Your task to perform on an android device: turn off location history Image 0: 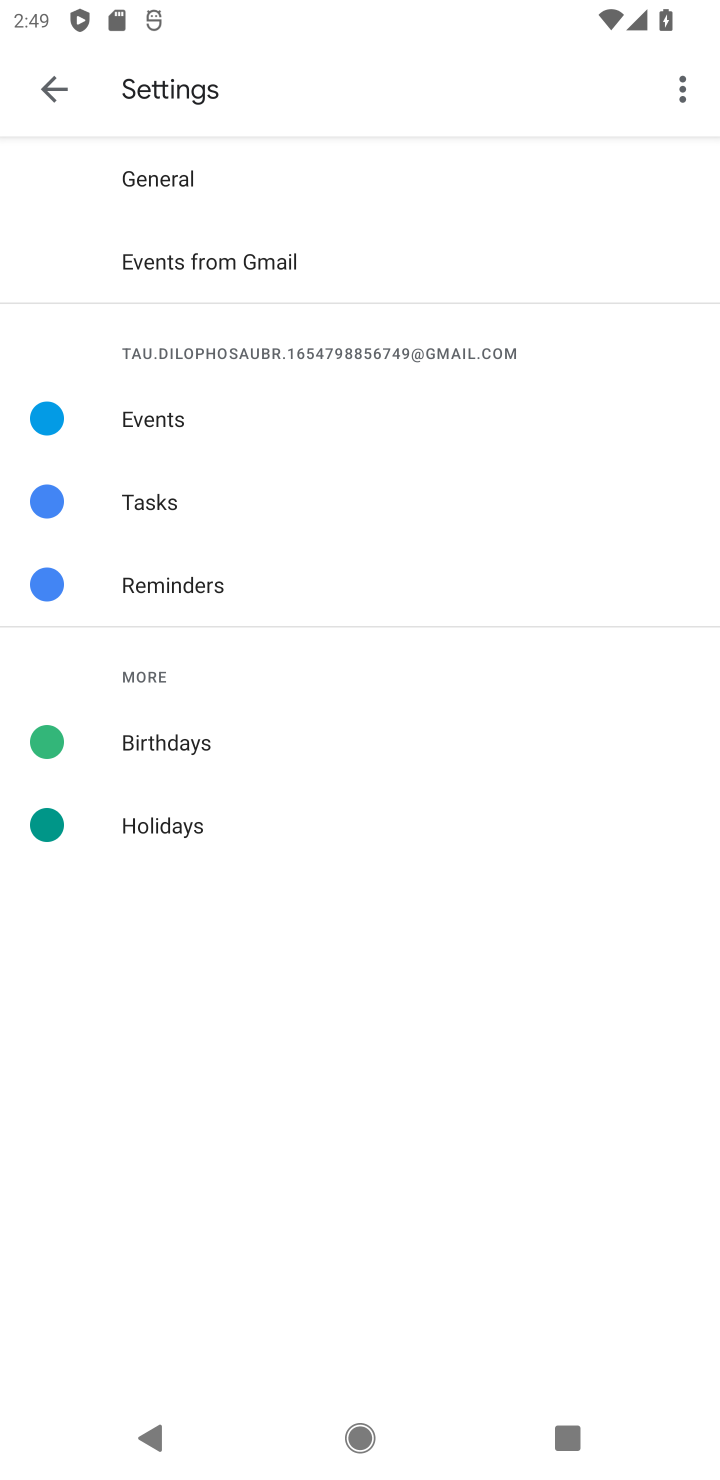
Step 0: press back button
Your task to perform on an android device: turn off location history Image 1: 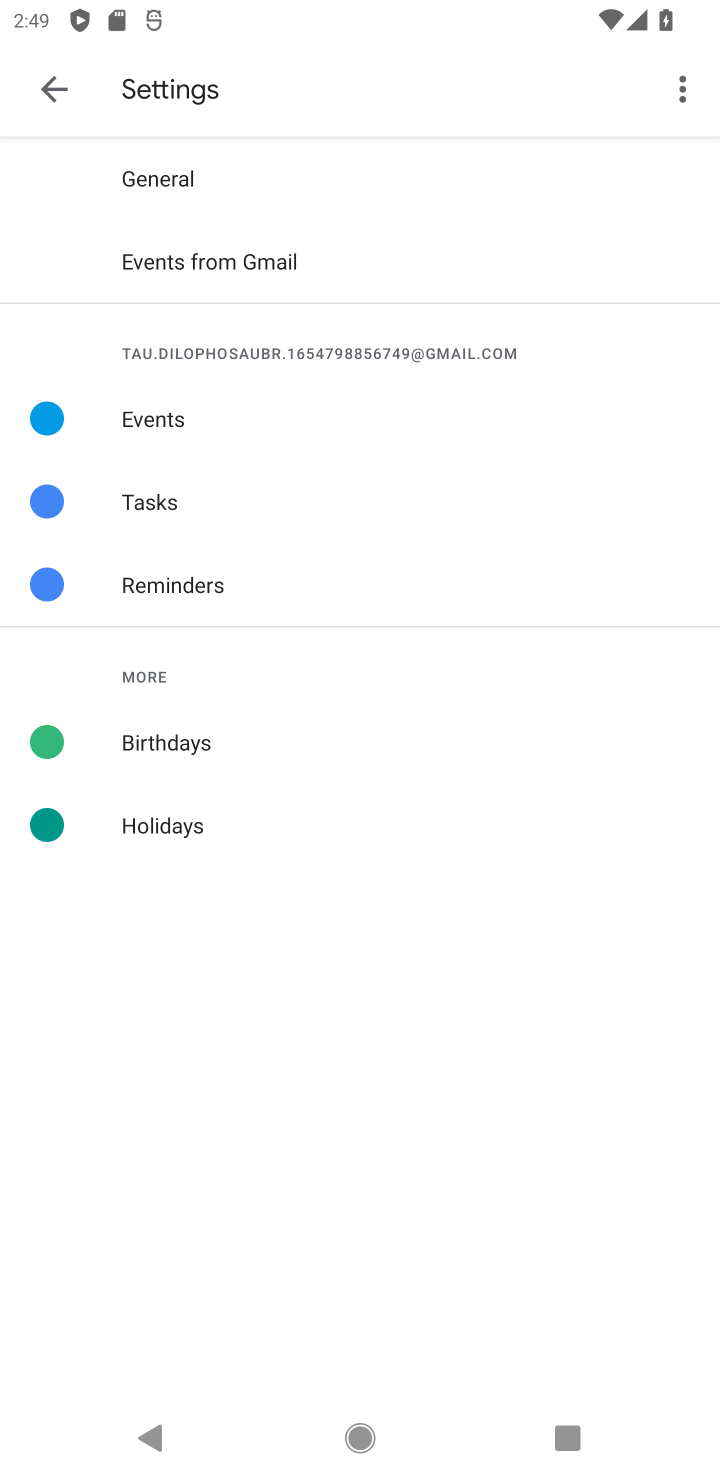
Step 1: click (48, 87)
Your task to perform on an android device: turn off location history Image 2: 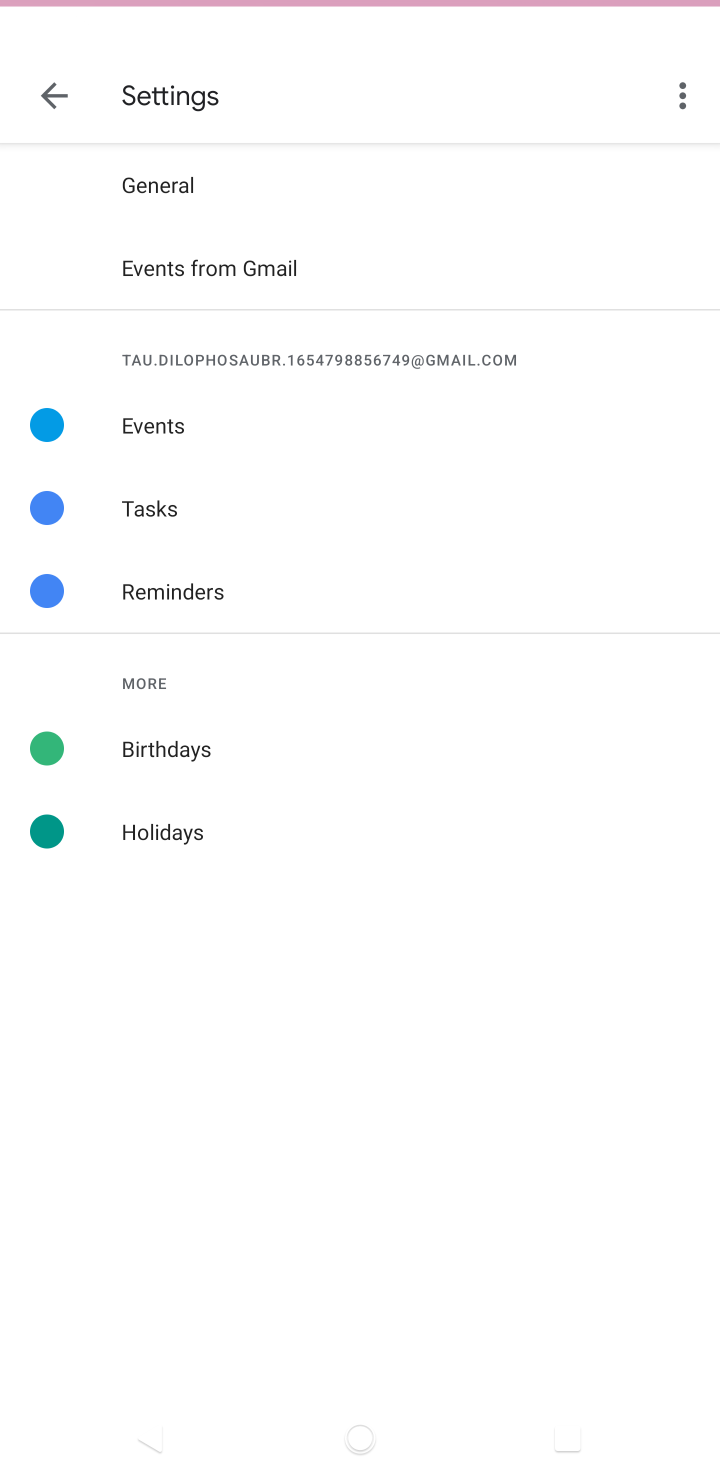
Step 2: press back button
Your task to perform on an android device: turn off location history Image 3: 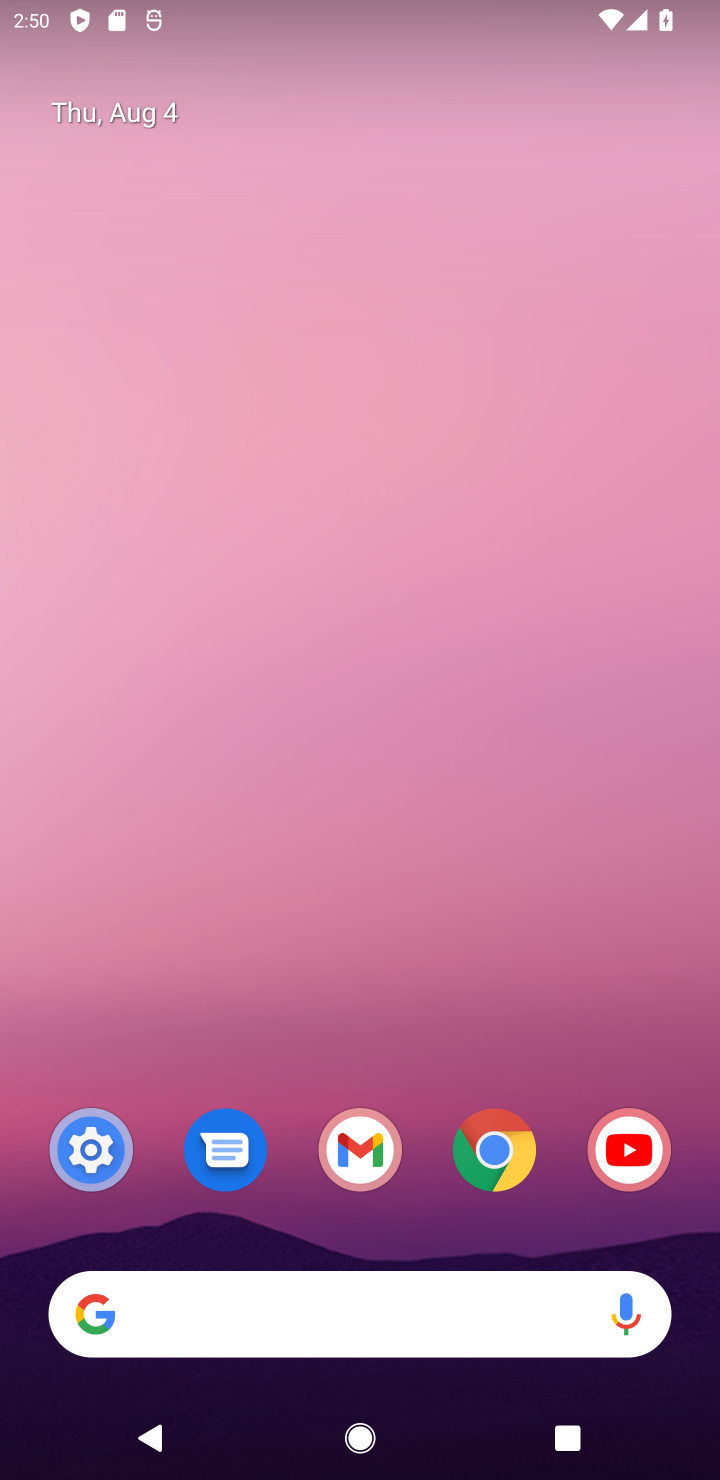
Step 3: drag from (130, 431) to (354, 464)
Your task to perform on an android device: turn off location history Image 4: 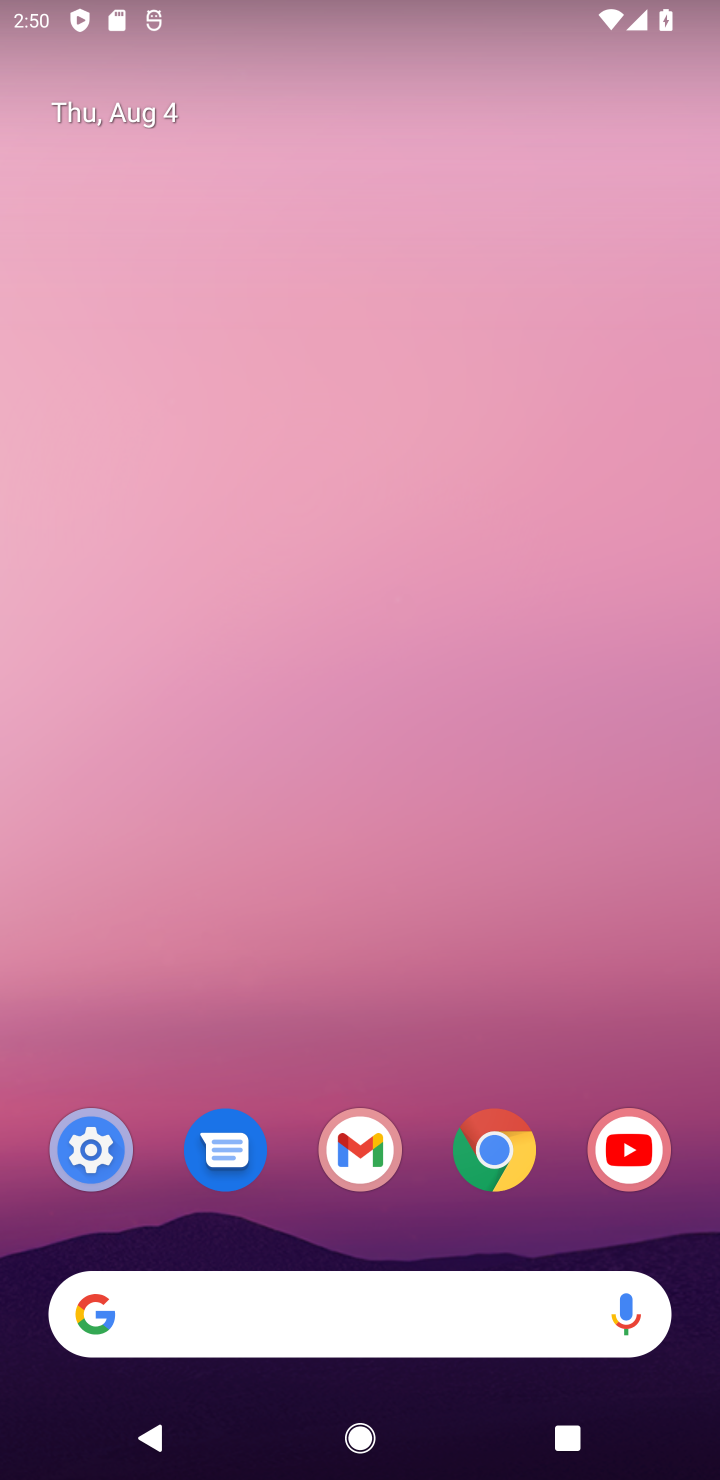
Step 4: drag from (458, 1397) to (209, 266)
Your task to perform on an android device: turn off location history Image 5: 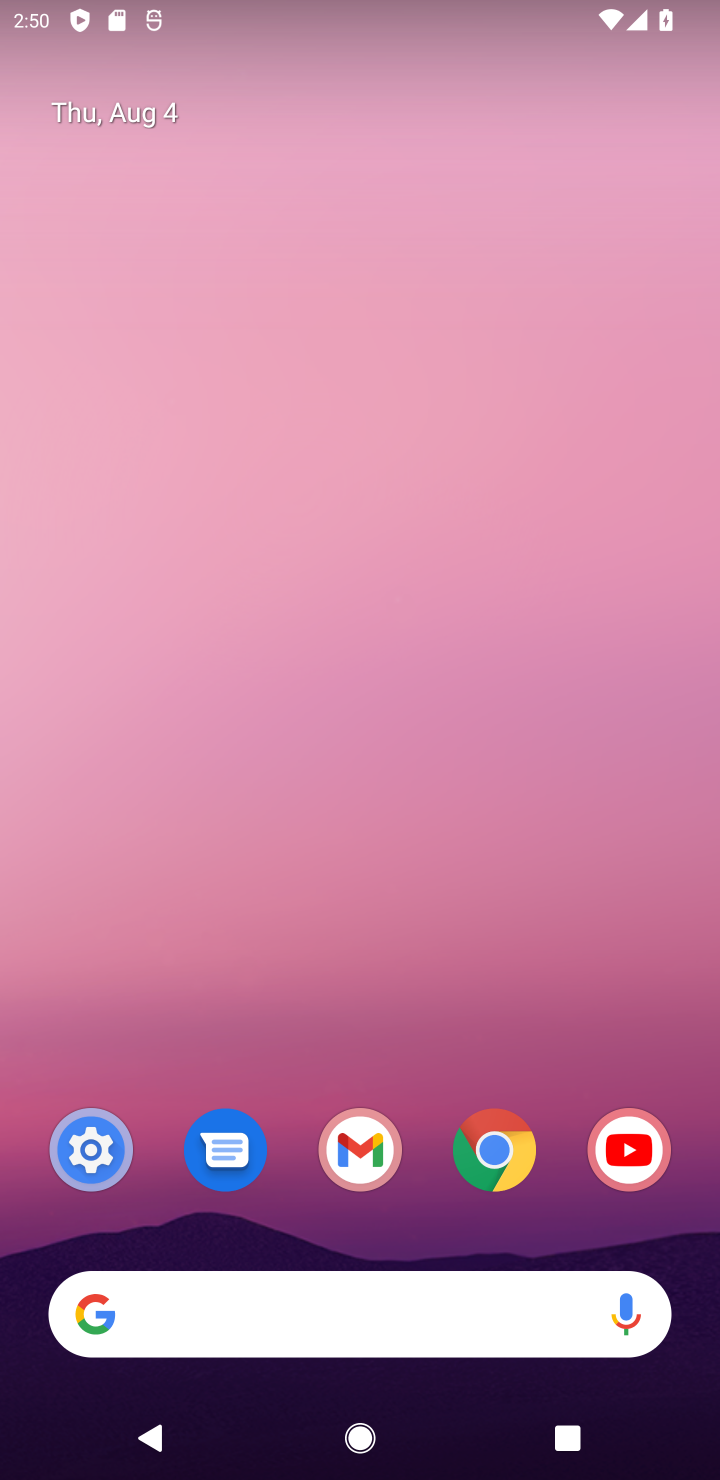
Step 5: drag from (464, 1177) to (303, 221)
Your task to perform on an android device: turn off location history Image 6: 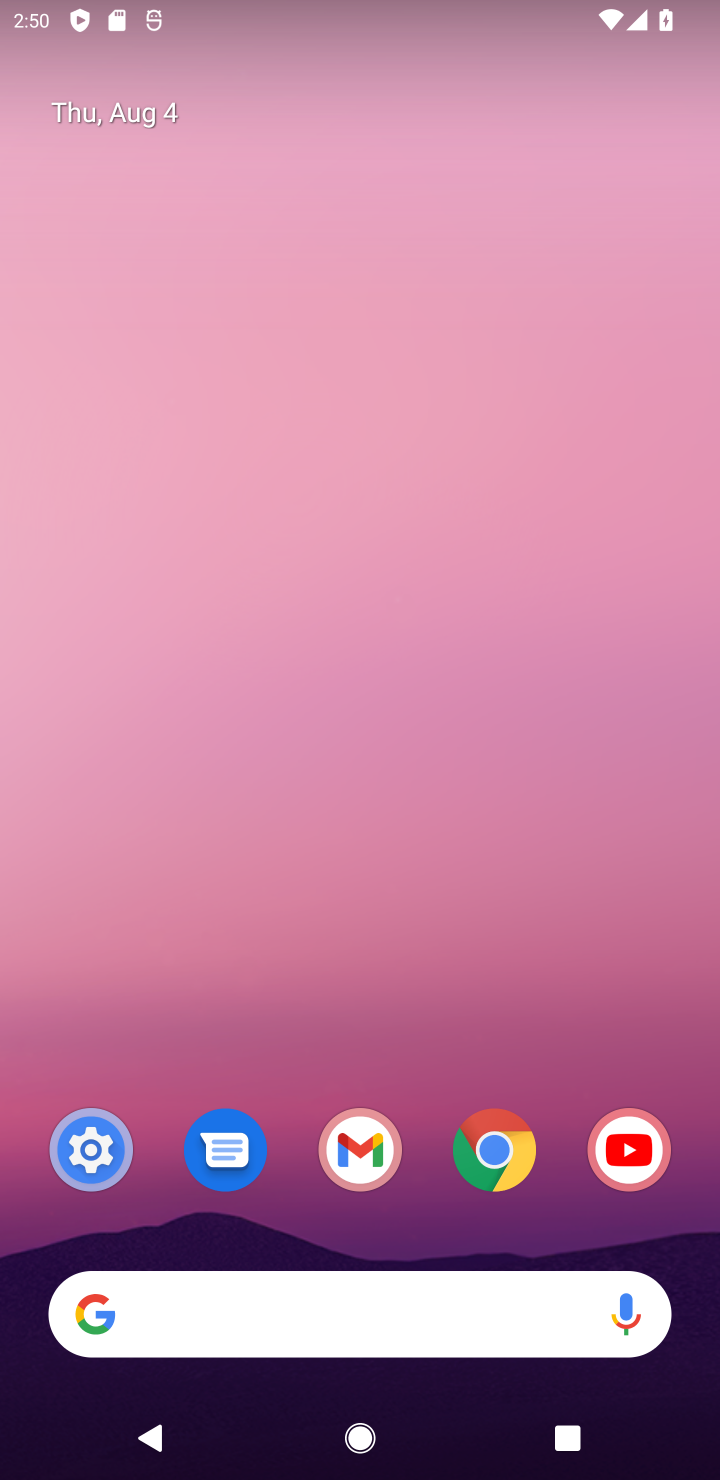
Step 6: drag from (356, 1030) to (304, 170)
Your task to perform on an android device: turn off location history Image 7: 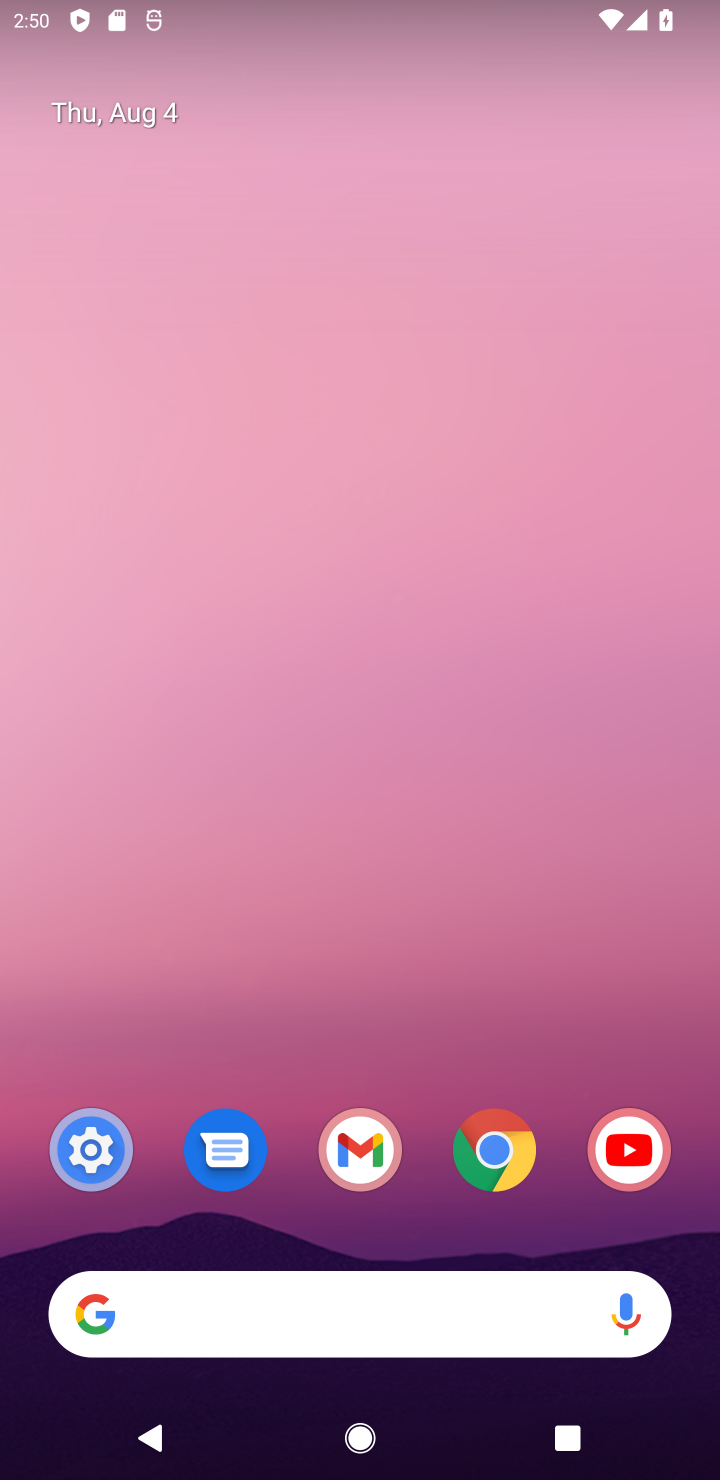
Step 7: click (396, 319)
Your task to perform on an android device: turn off location history Image 8: 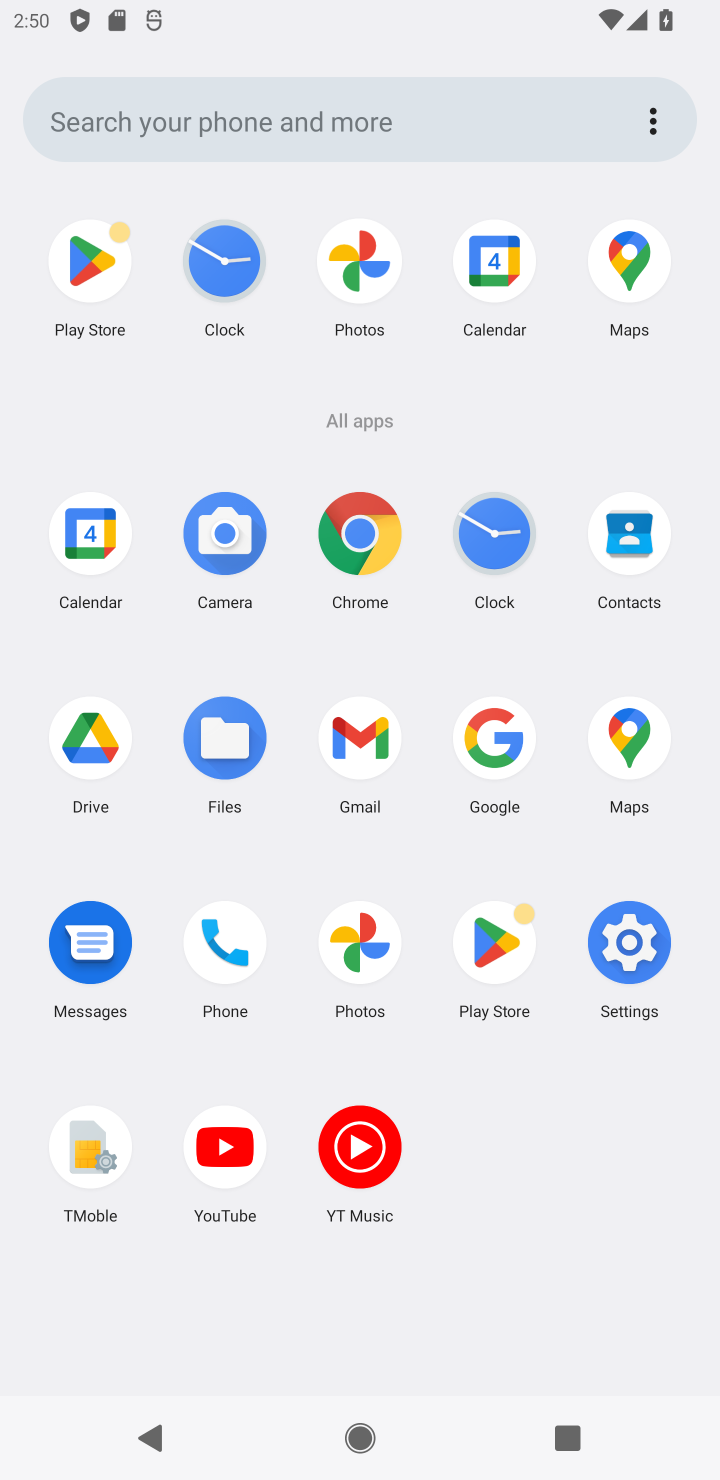
Step 8: drag from (458, 935) to (402, 223)
Your task to perform on an android device: turn off location history Image 9: 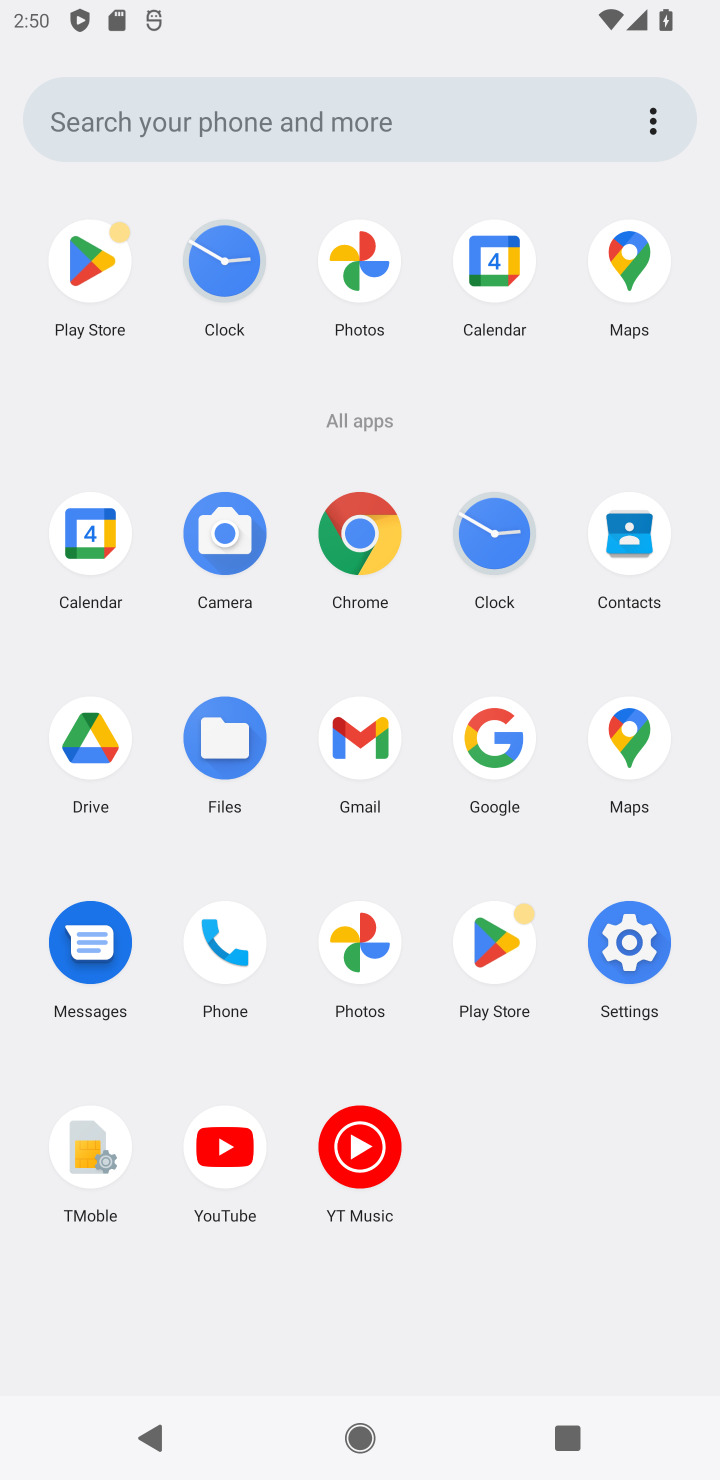
Step 9: click (612, 941)
Your task to perform on an android device: turn off location history Image 10: 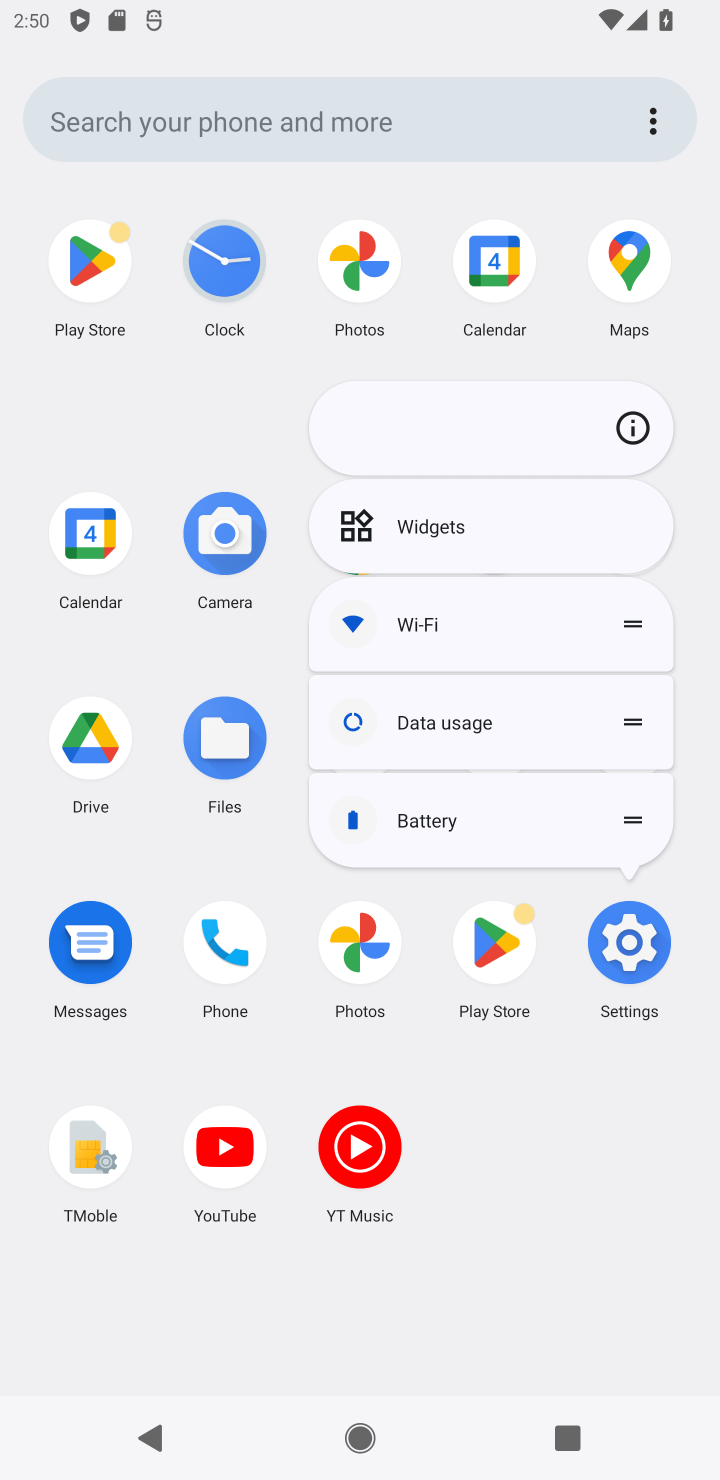
Step 10: click (643, 952)
Your task to perform on an android device: turn off location history Image 11: 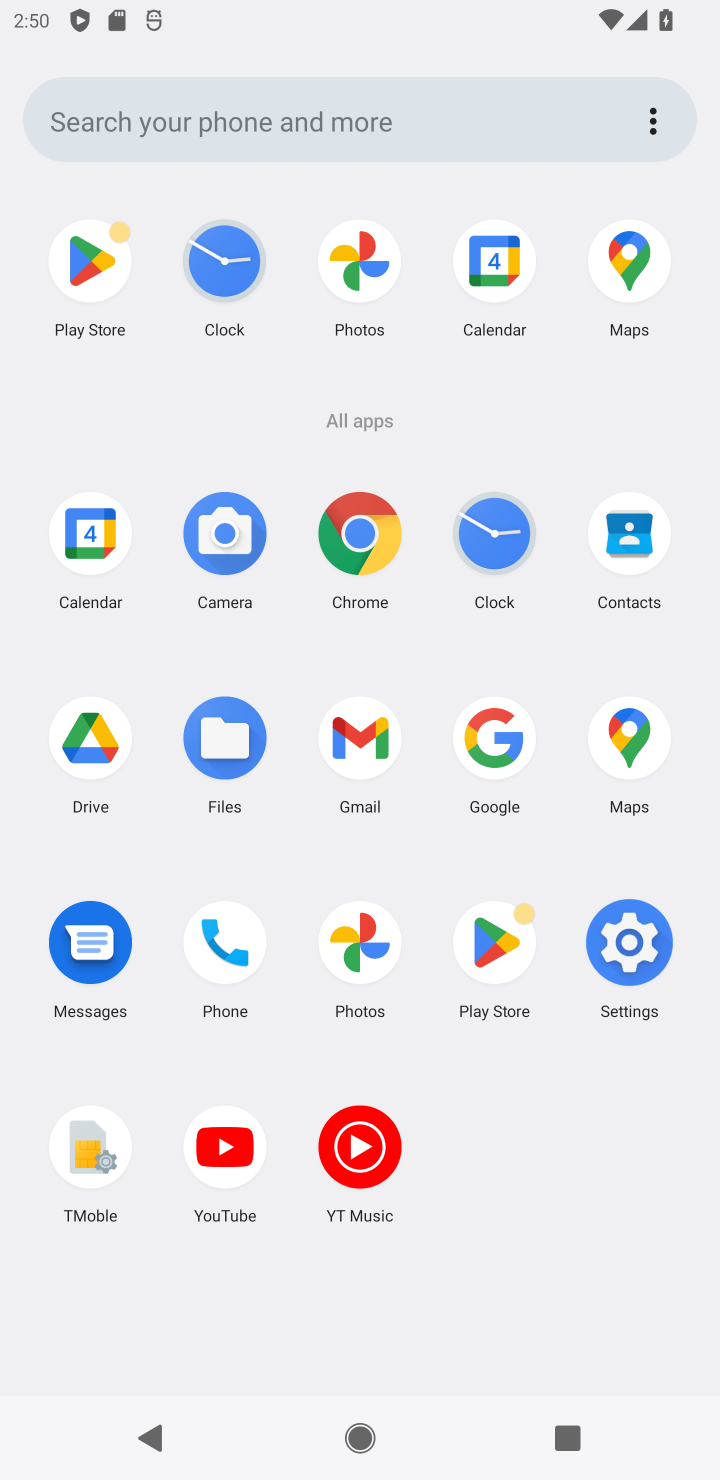
Step 11: click (625, 938)
Your task to perform on an android device: turn off location history Image 12: 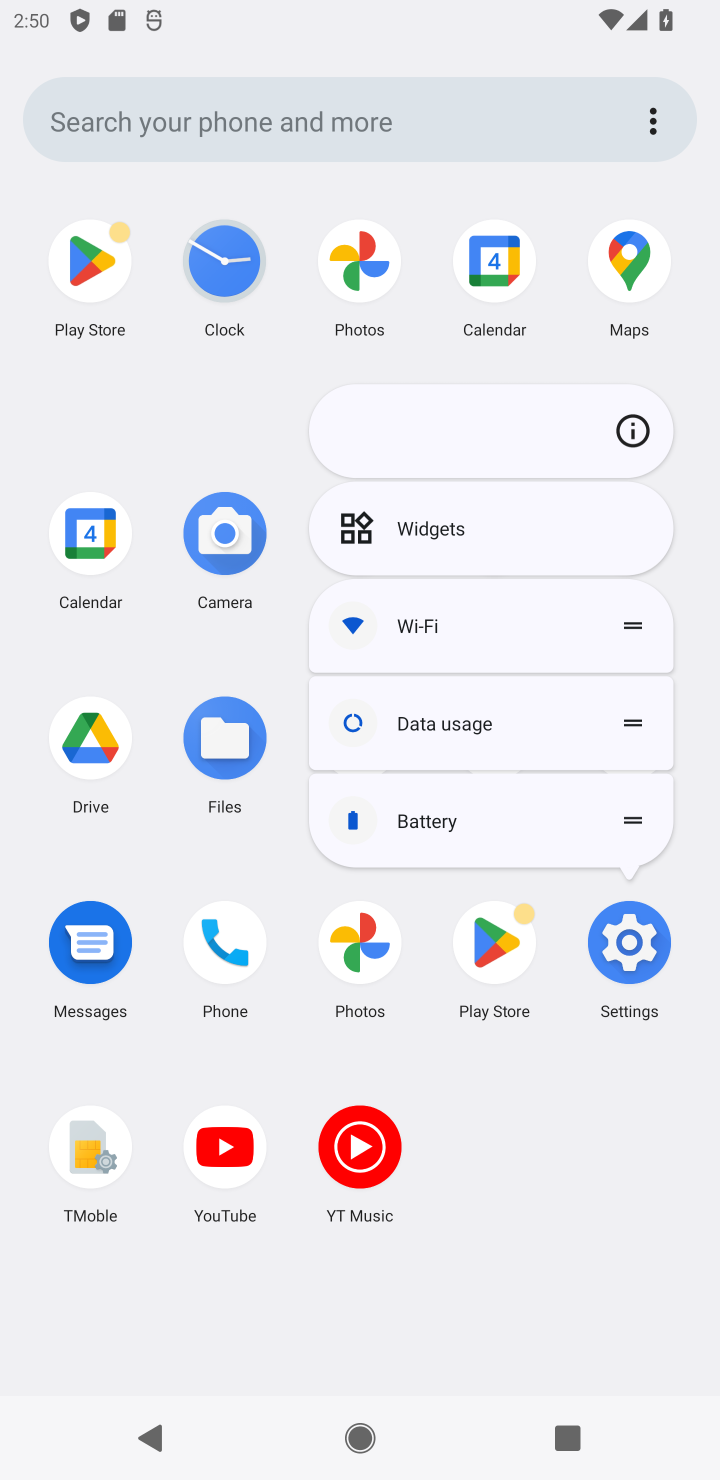
Step 12: click (623, 936)
Your task to perform on an android device: turn off location history Image 13: 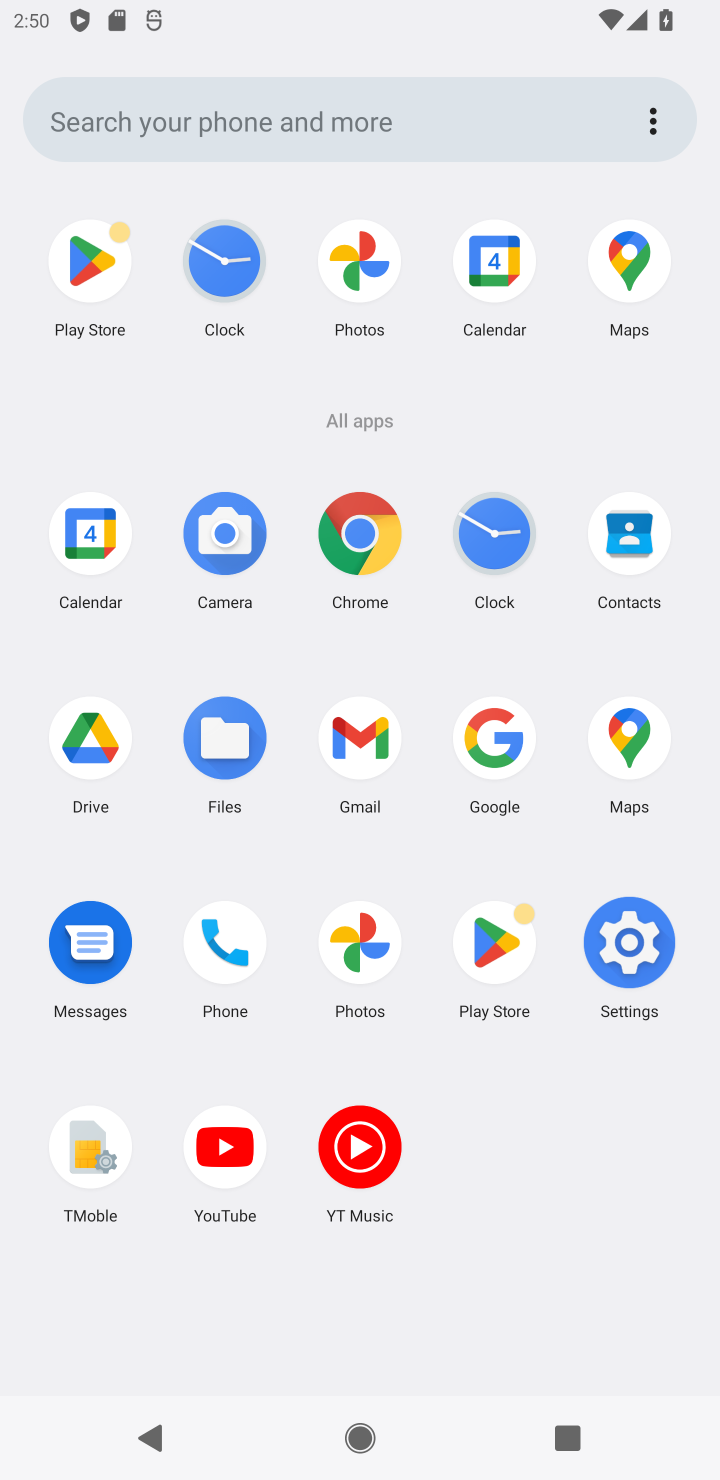
Step 13: click (619, 933)
Your task to perform on an android device: turn off location history Image 14: 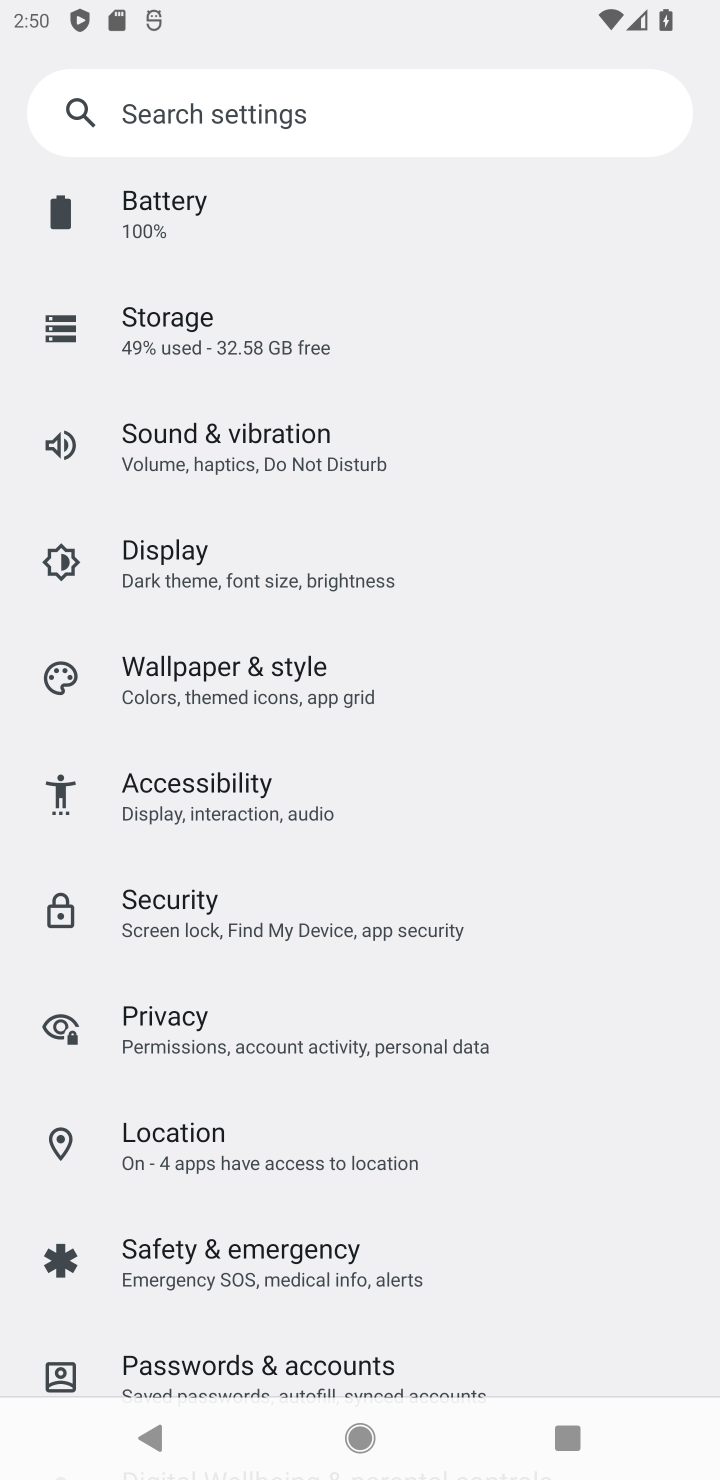
Step 14: click (176, 1144)
Your task to perform on an android device: turn off location history Image 15: 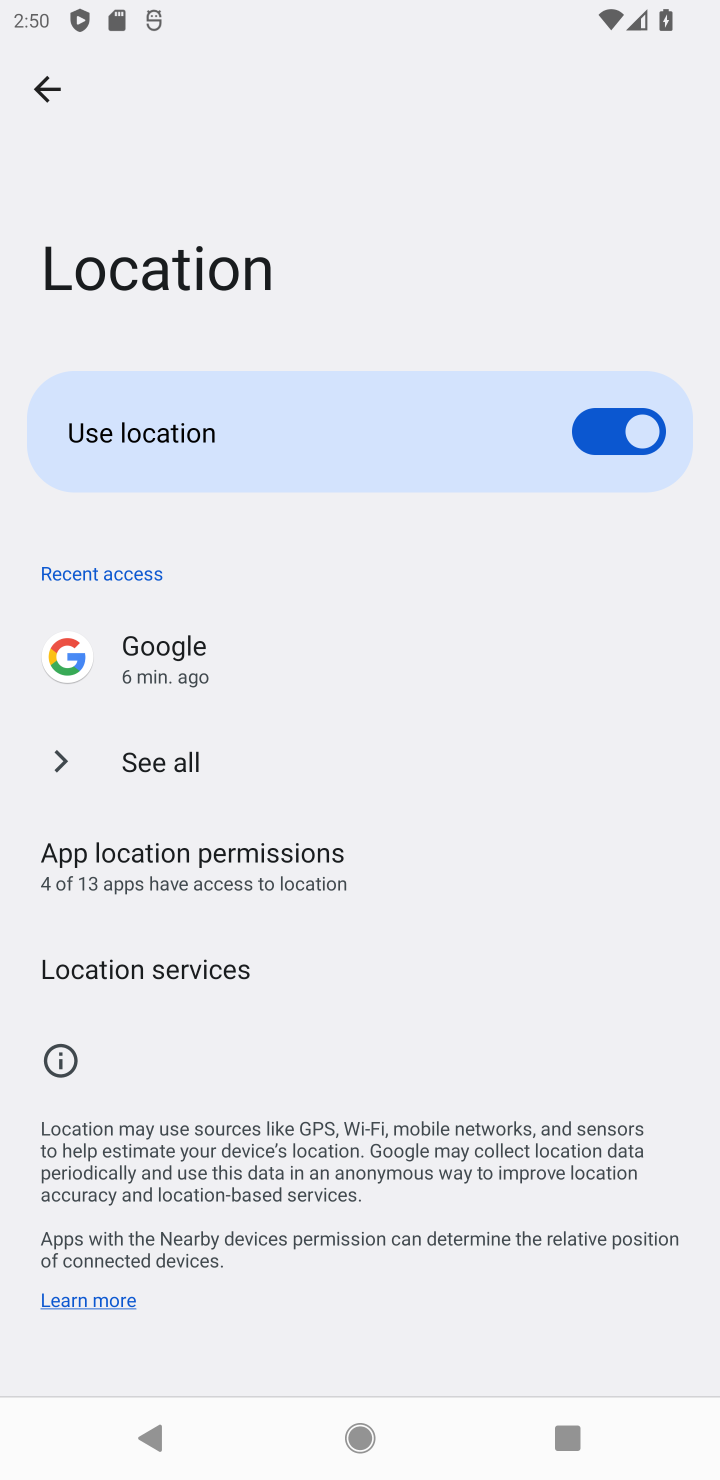
Step 15: drag from (302, 1143) to (245, 322)
Your task to perform on an android device: turn off location history Image 16: 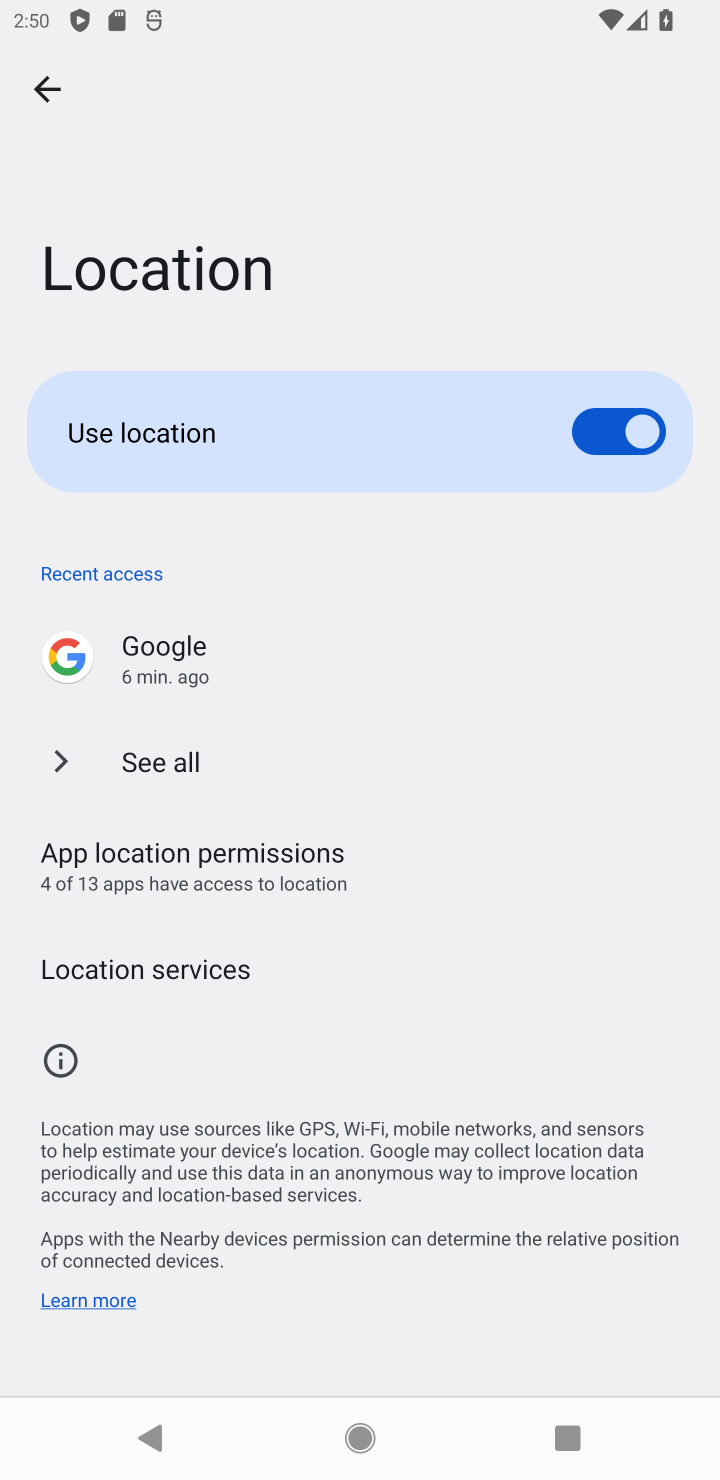
Step 16: drag from (258, 1044) to (241, 604)
Your task to perform on an android device: turn off location history Image 17: 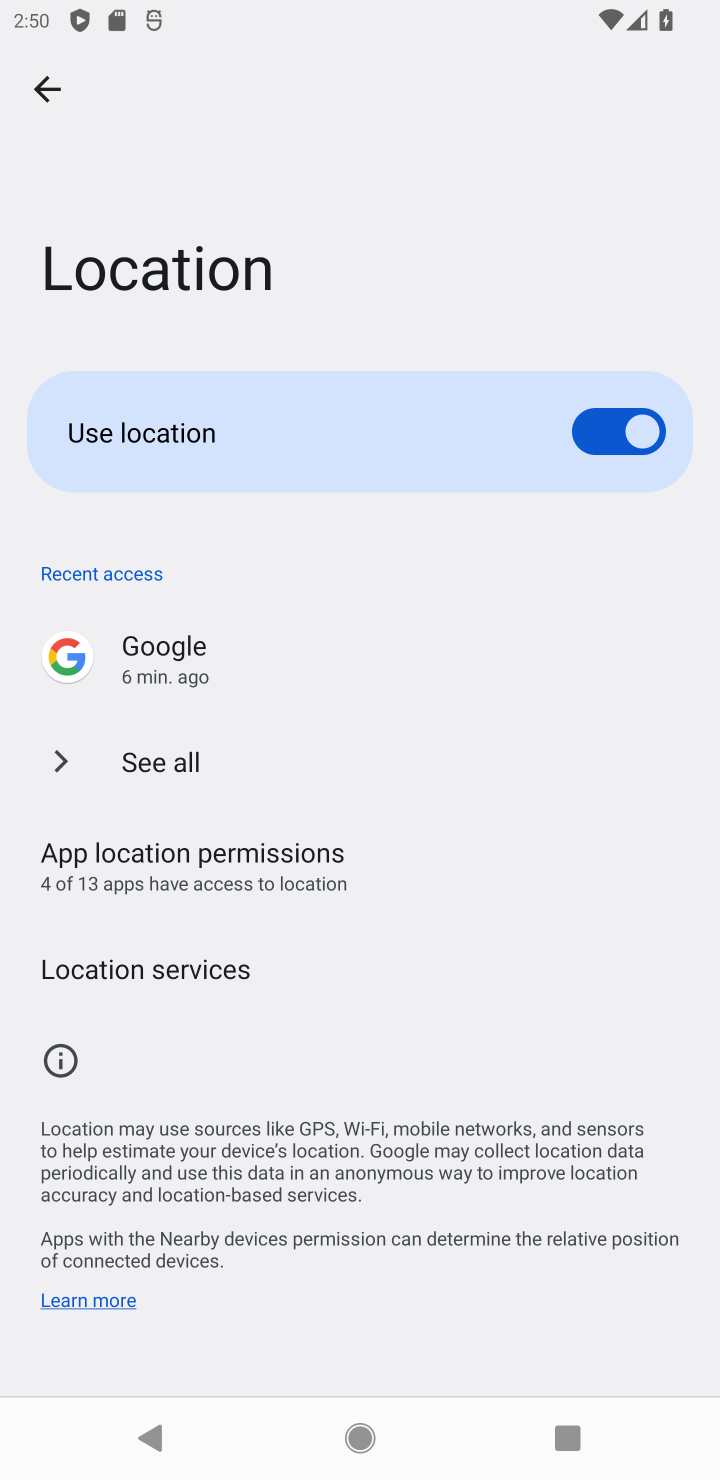
Step 17: drag from (236, 999) to (303, 486)
Your task to perform on an android device: turn off location history Image 18: 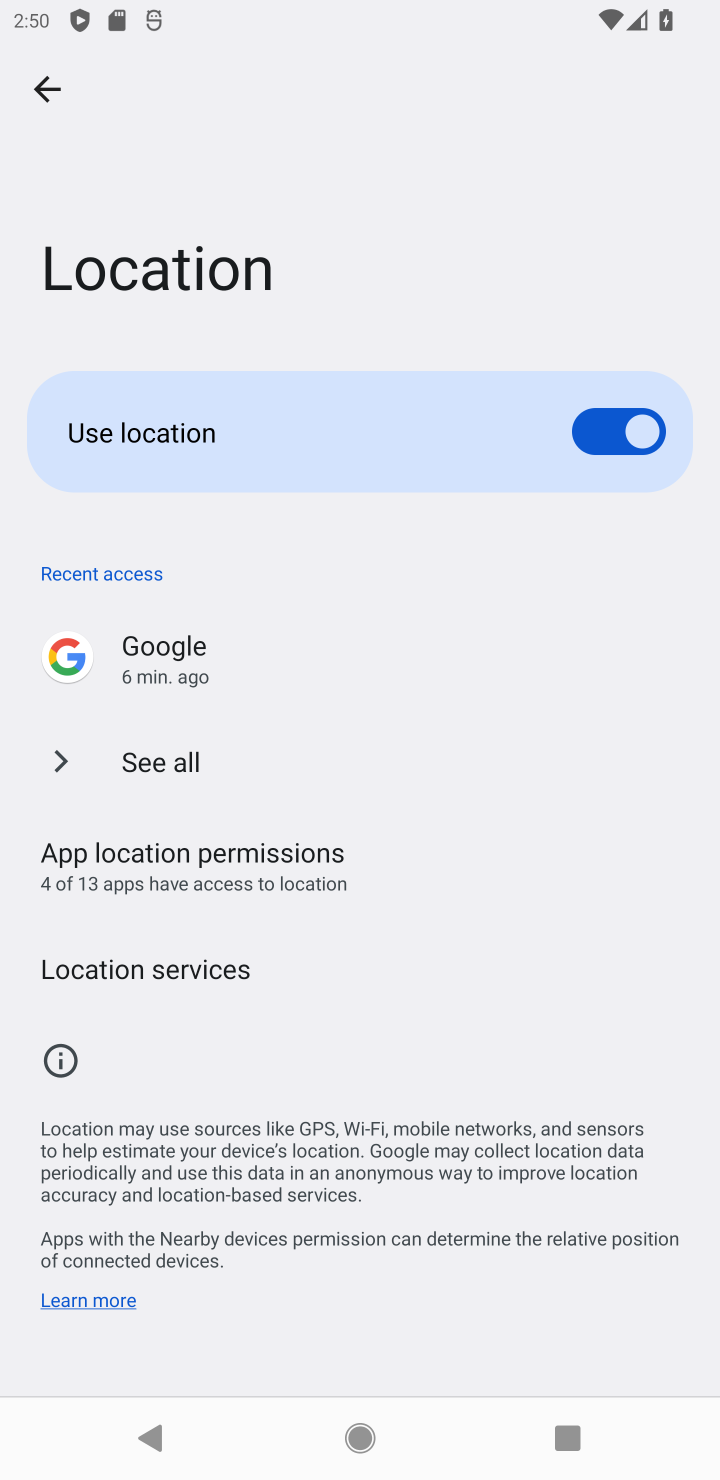
Step 18: drag from (320, 1268) to (243, 463)
Your task to perform on an android device: turn off location history Image 19: 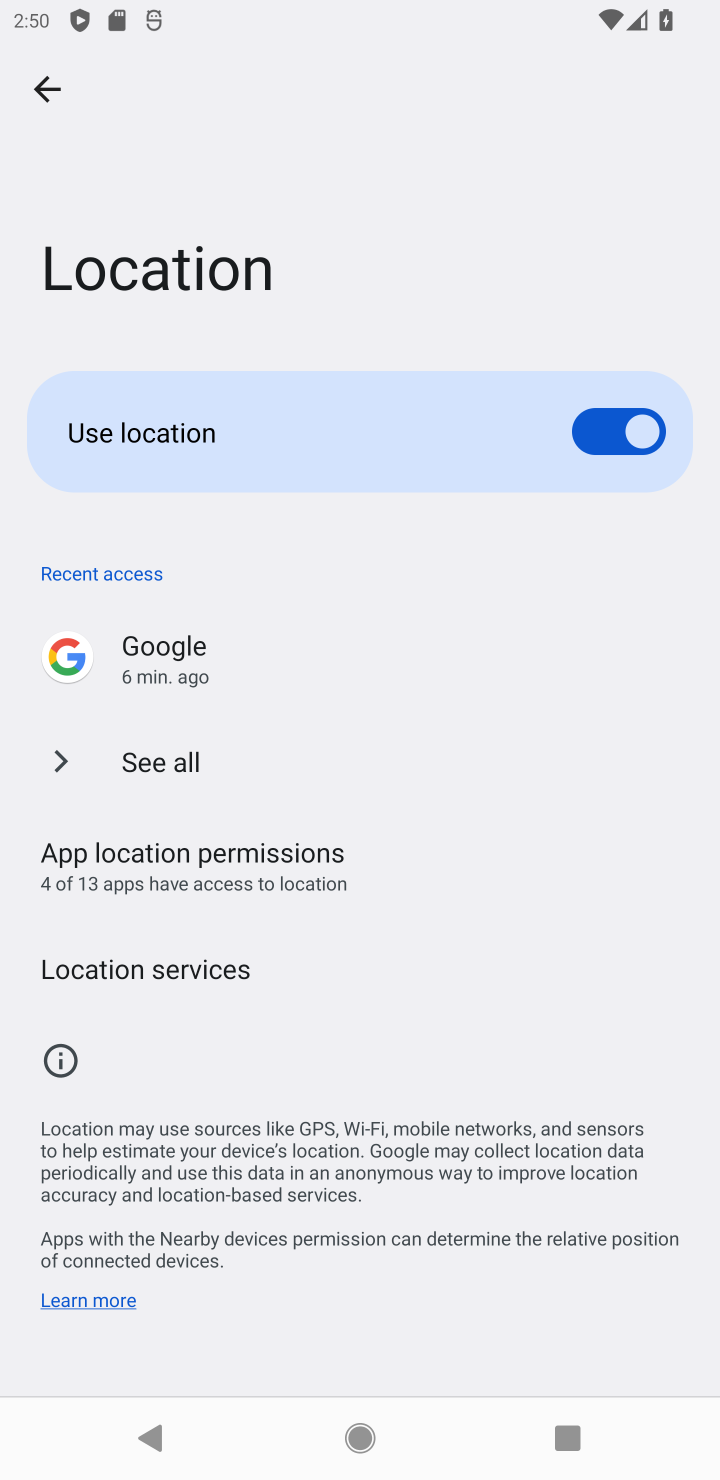
Step 19: click (201, 856)
Your task to perform on an android device: turn off location history Image 20: 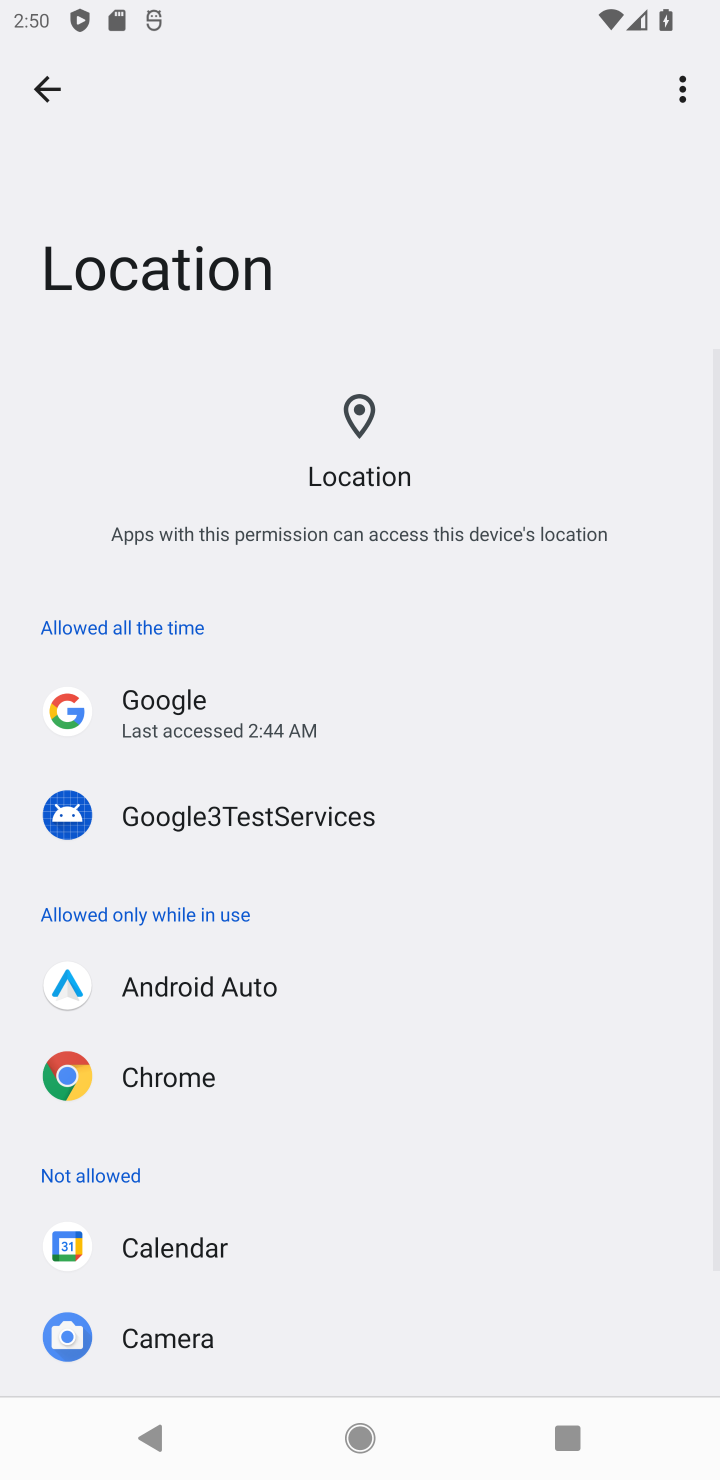
Step 20: drag from (321, 1088) to (433, 384)
Your task to perform on an android device: turn off location history Image 21: 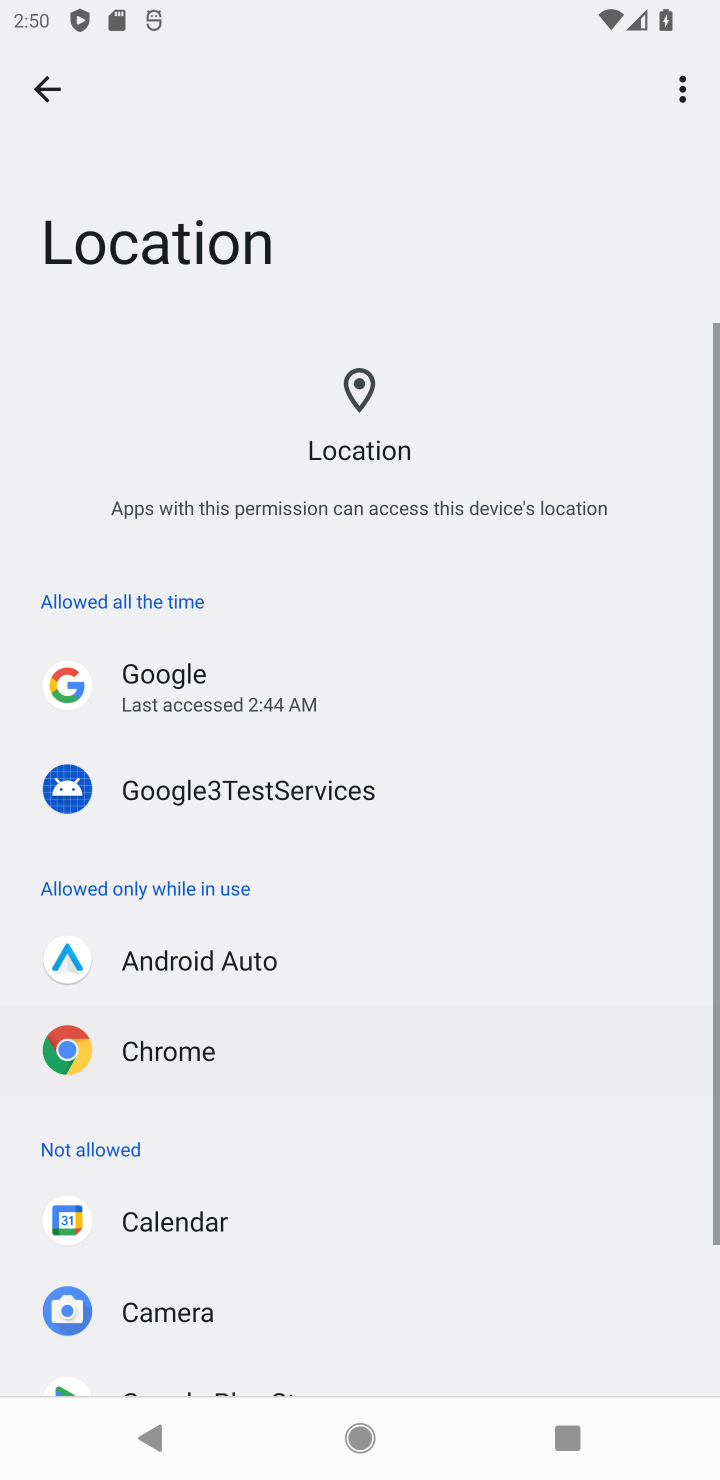
Step 21: drag from (417, 895) to (363, 176)
Your task to perform on an android device: turn off location history Image 22: 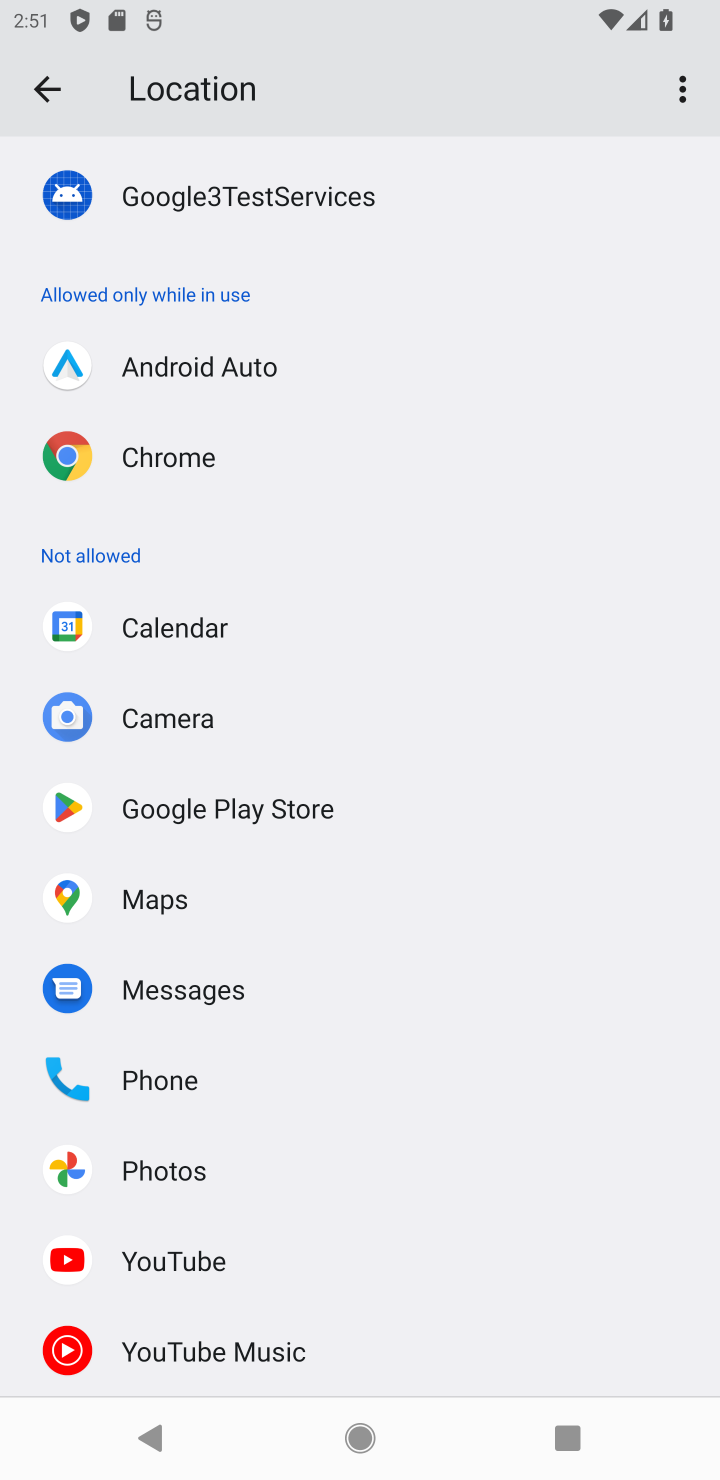
Step 22: click (50, 94)
Your task to perform on an android device: turn off location history Image 23: 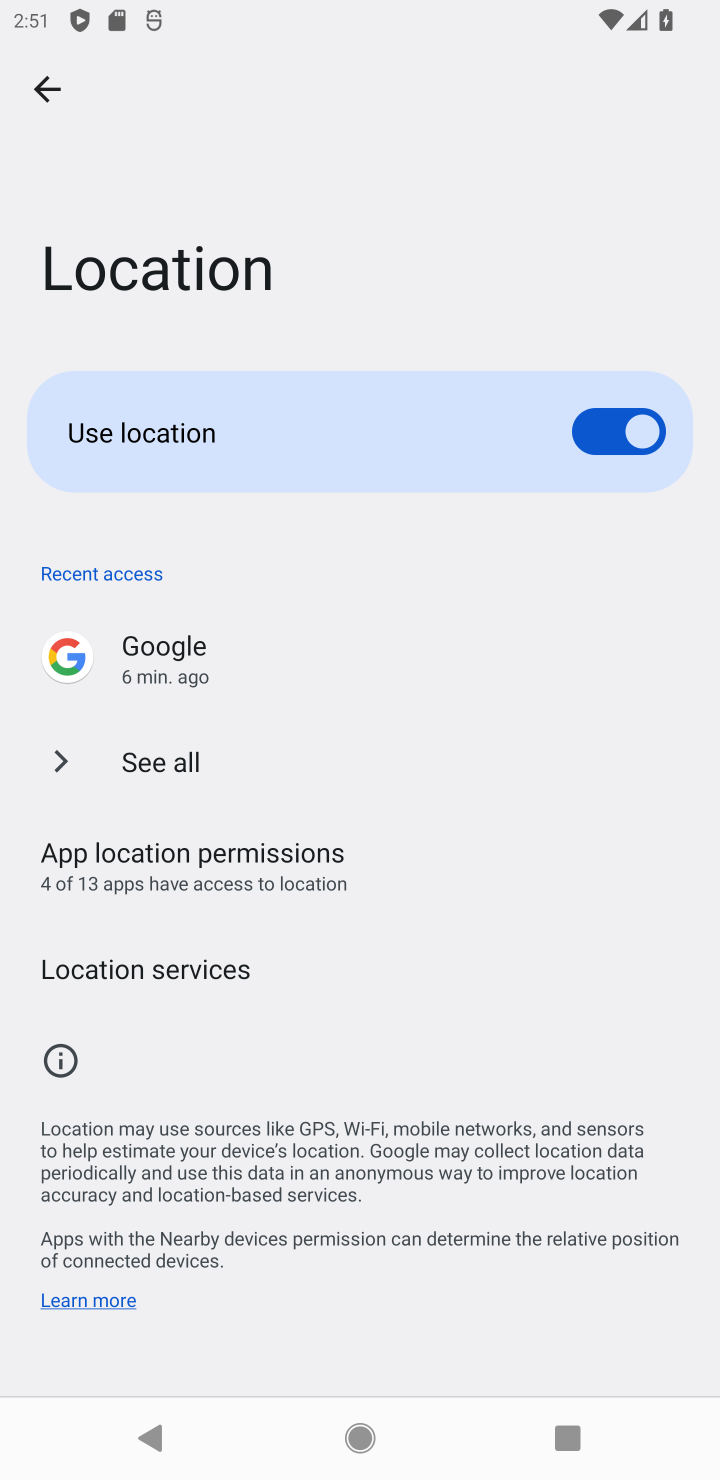
Step 23: click (45, 79)
Your task to perform on an android device: turn off location history Image 24: 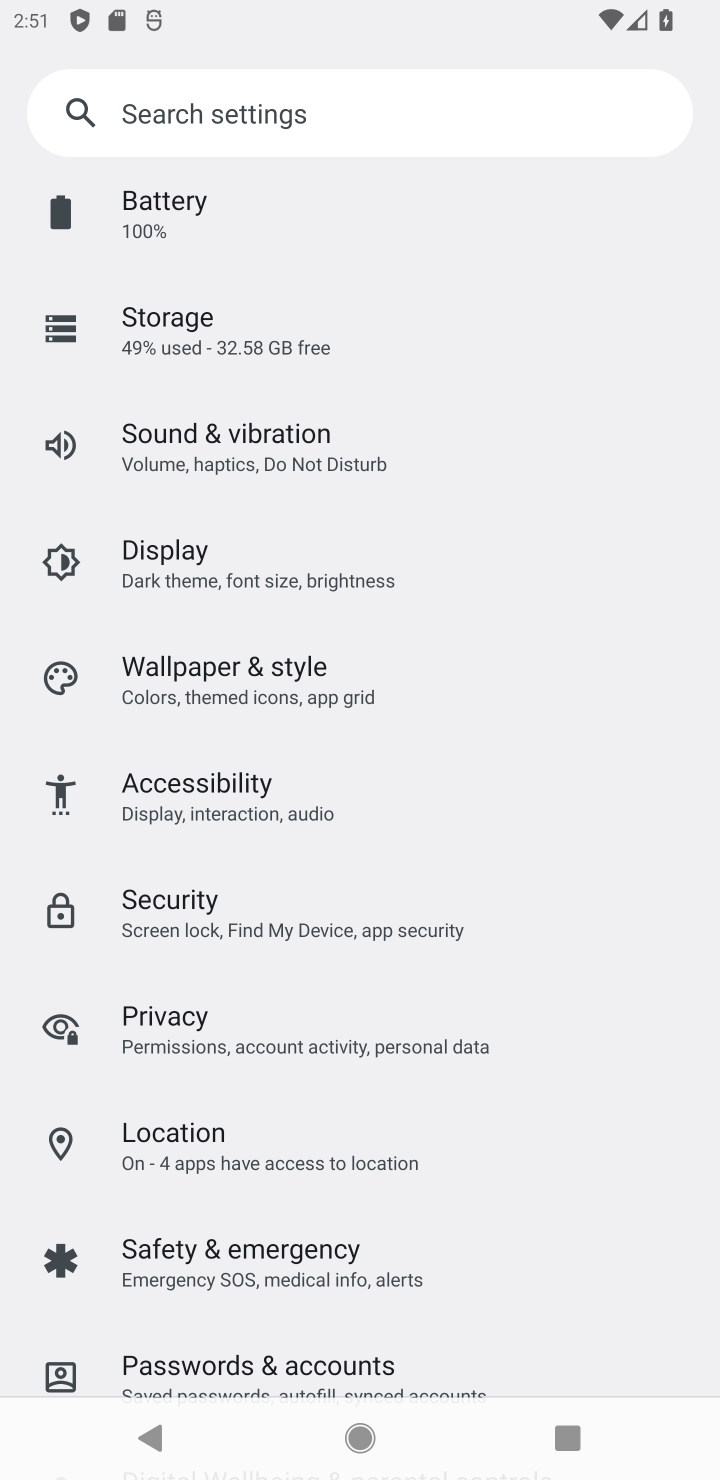
Step 24: click (188, 1146)
Your task to perform on an android device: turn off location history Image 25: 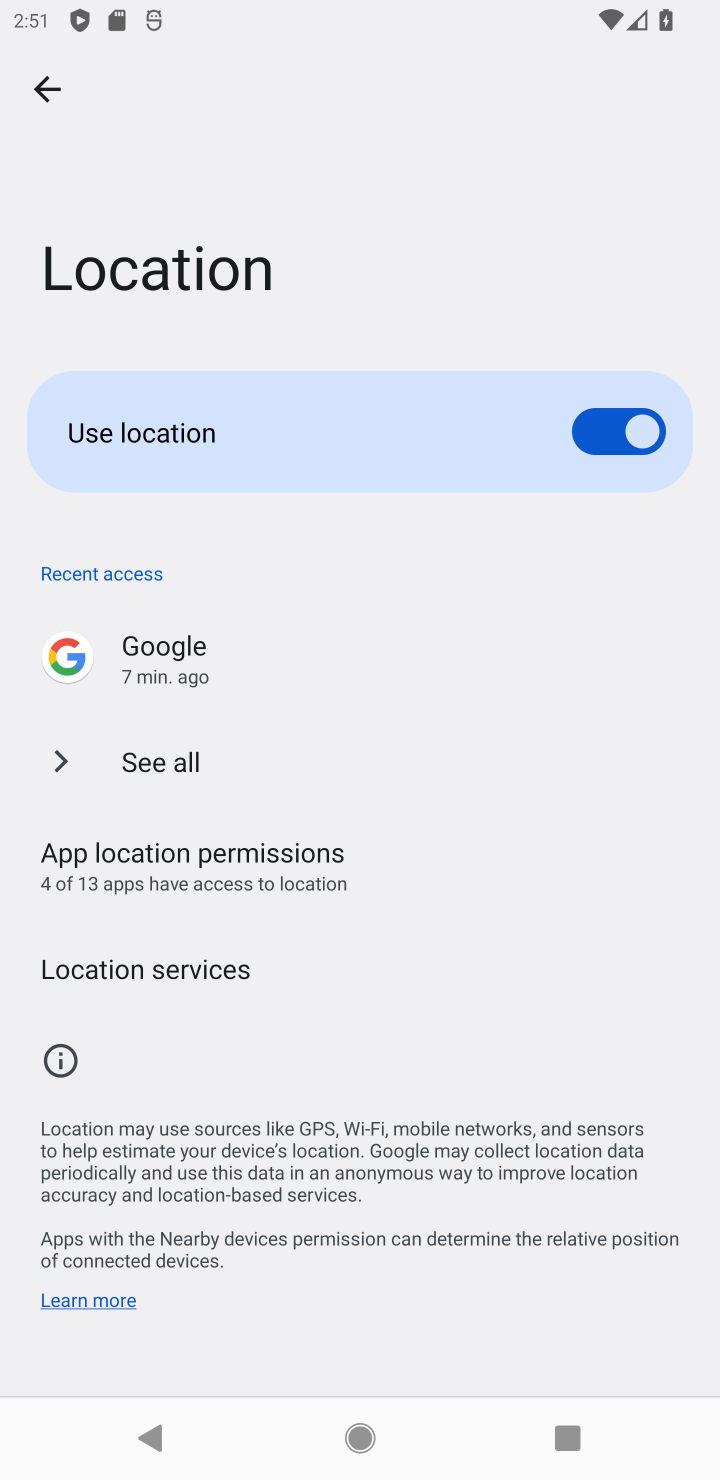
Step 25: drag from (190, 297) to (284, 490)
Your task to perform on an android device: turn off location history Image 26: 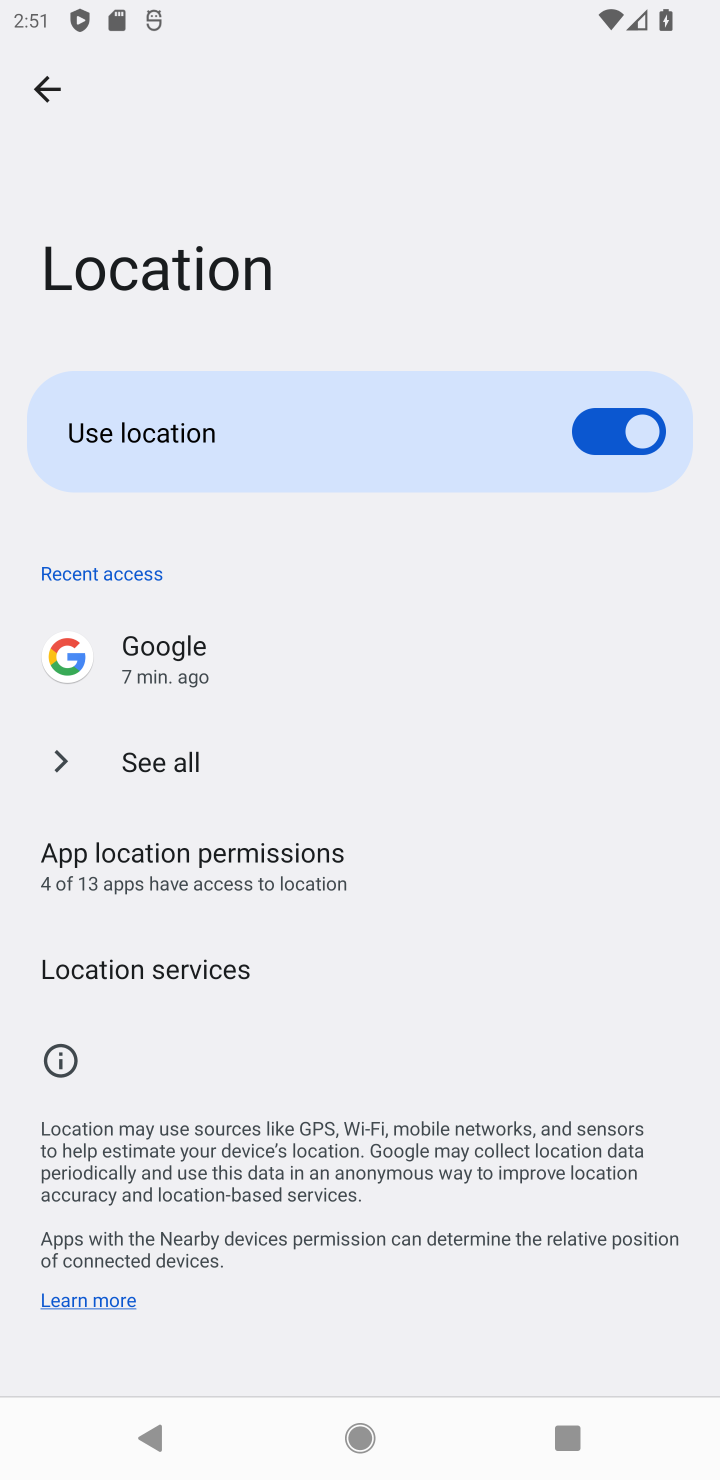
Step 26: click (298, 457)
Your task to perform on an android device: turn off location history Image 27: 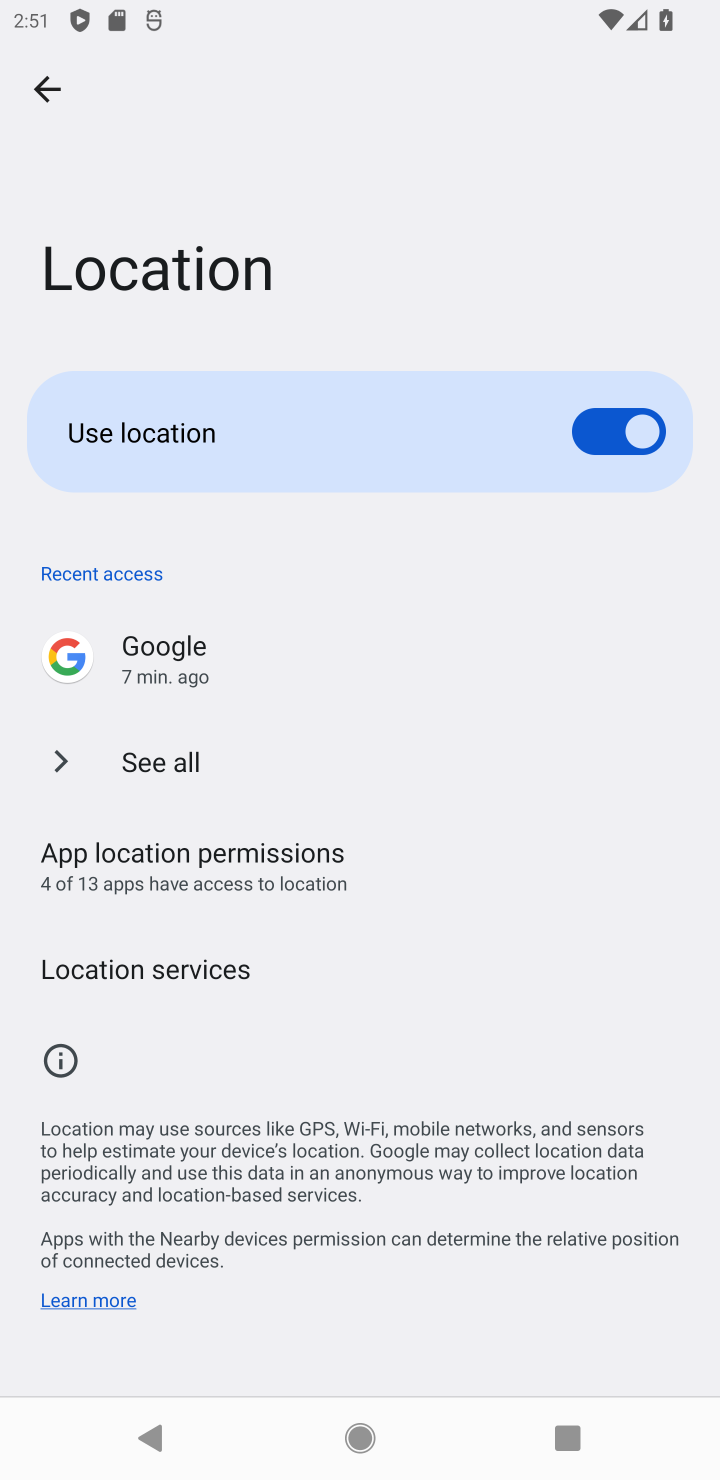
Step 27: task complete